Your task to perform on an android device: find which apps use the phone's location Image 0: 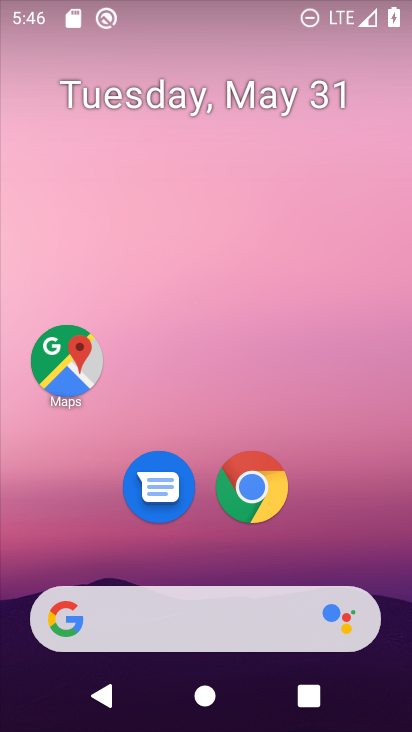
Step 0: drag from (341, 525) to (264, 108)
Your task to perform on an android device: find which apps use the phone's location Image 1: 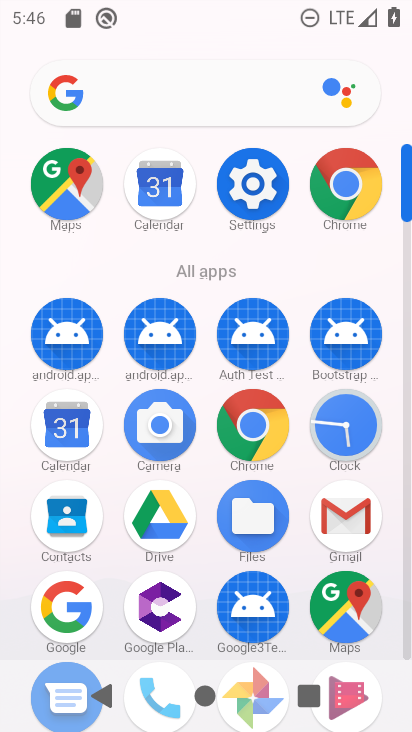
Step 1: click (254, 188)
Your task to perform on an android device: find which apps use the phone's location Image 2: 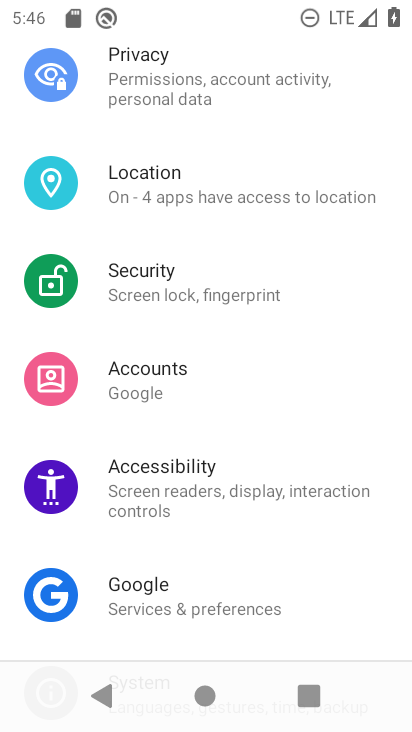
Step 2: click (153, 165)
Your task to perform on an android device: find which apps use the phone's location Image 3: 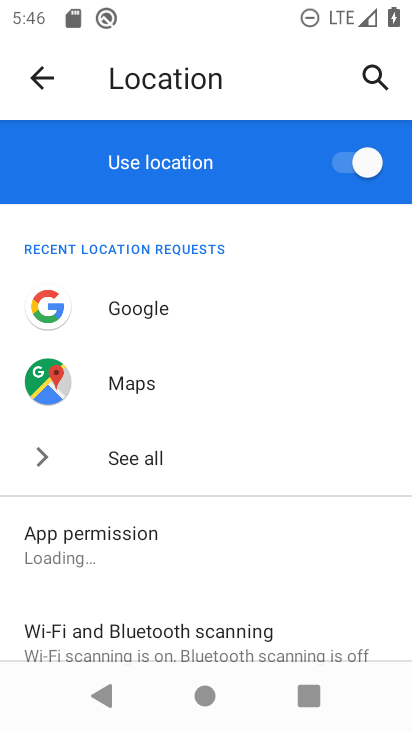
Step 3: click (59, 456)
Your task to perform on an android device: find which apps use the phone's location Image 4: 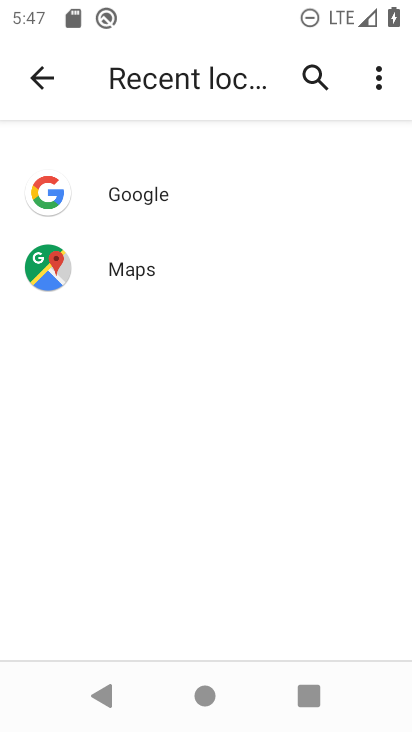
Step 4: task complete